Your task to perform on an android device: turn on improve location accuracy Image 0: 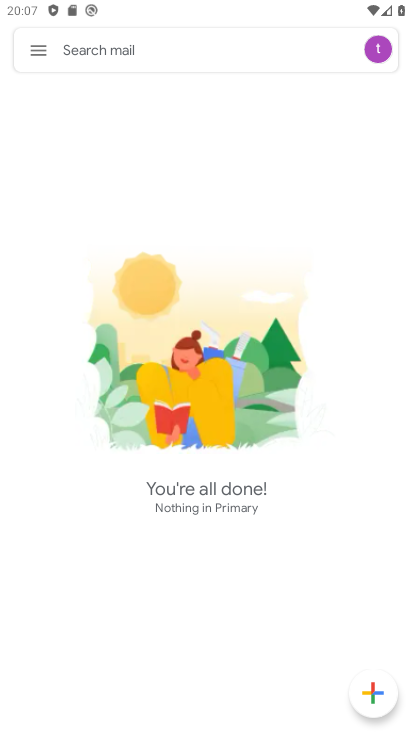
Step 0: press home button
Your task to perform on an android device: turn on improve location accuracy Image 1: 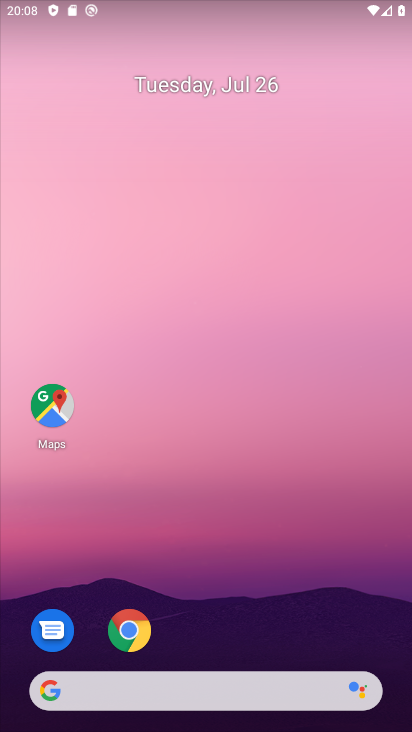
Step 1: drag from (344, 632) to (349, 146)
Your task to perform on an android device: turn on improve location accuracy Image 2: 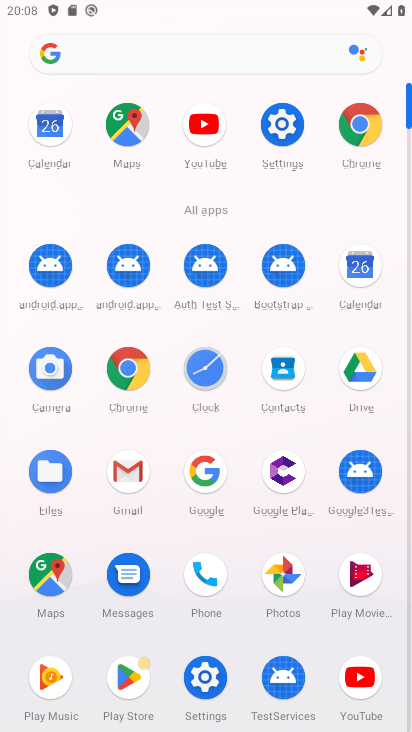
Step 2: click (276, 126)
Your task to perform on an android device: turn on improve location accuracy Image 3: 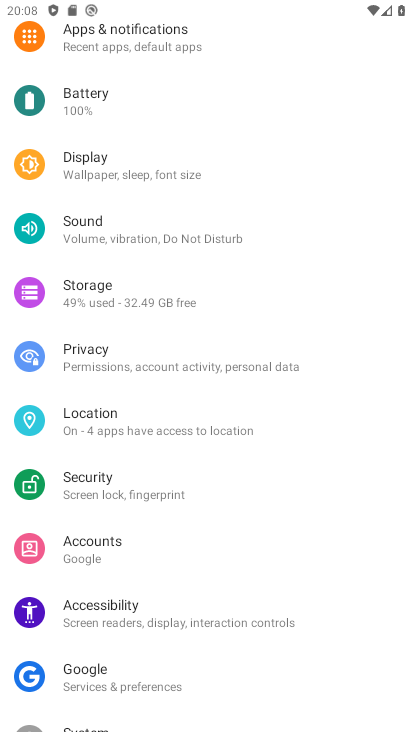
Step 3: drag from (342, 179) to (343, 255)
Your task to perform on an android device: turn on improve location accuracy Image 4: 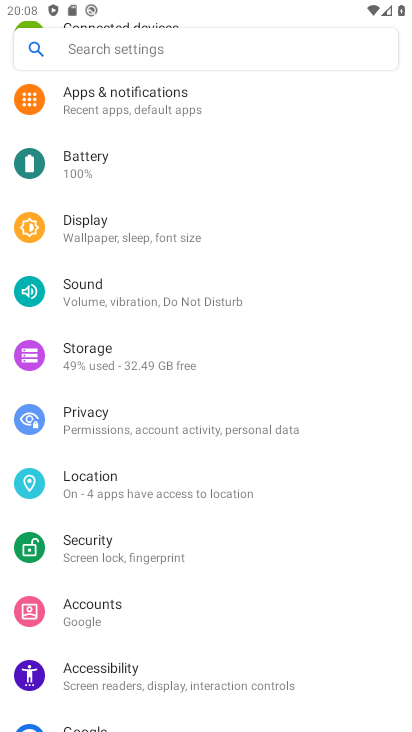
Step 4: drag from (351, 160) to (345, 262)
Your task to perform on an android device: turn on improve location accuracy Image 5: 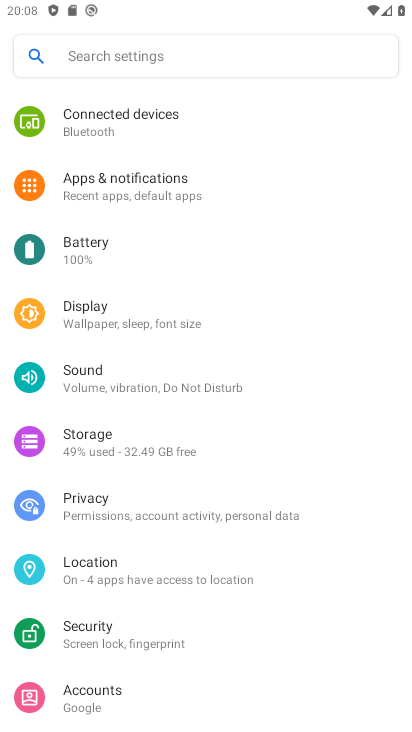
Step 5: drag from (344, 144) to (359, 329)
Your task to perform on an android device: turn on improve location accuracy Image 6: 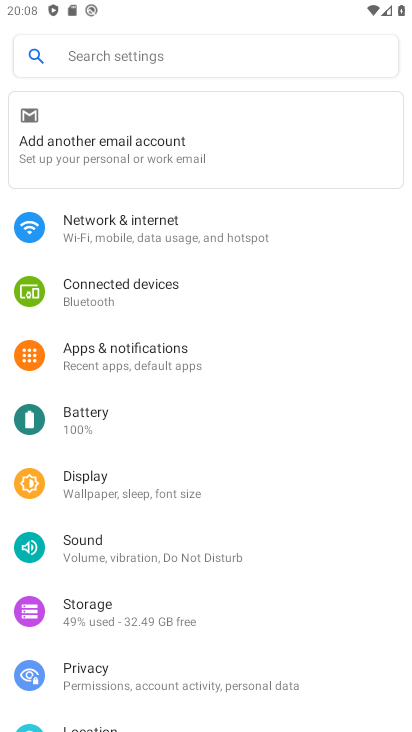
Step 6: drag from (367, 191) to (373, 329)
Your task to perform on an android device: turn on improve location accuracy Image 7: 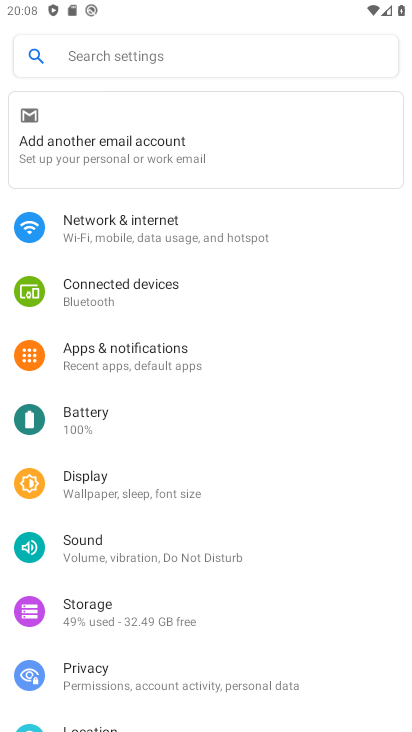
Step 7: drag from (360, 393) to (362, 328)
Your task to perform on an android device: turn on improve location accuracy Image 8: 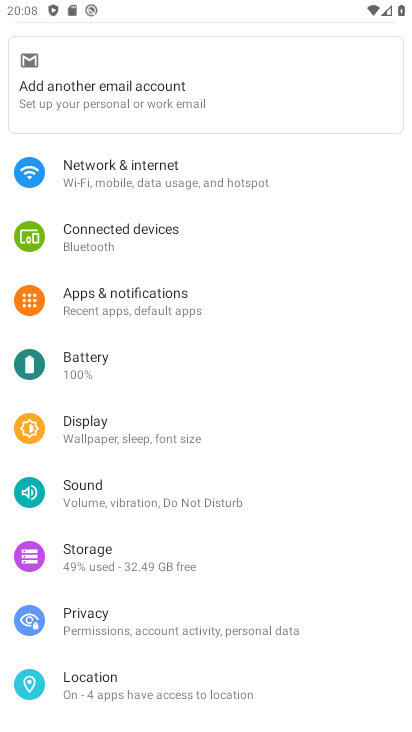
Step 8: drag from (340, 400) to (326, 311)
Your task to perform on an android device: turn on improve location accuracy Image 9: 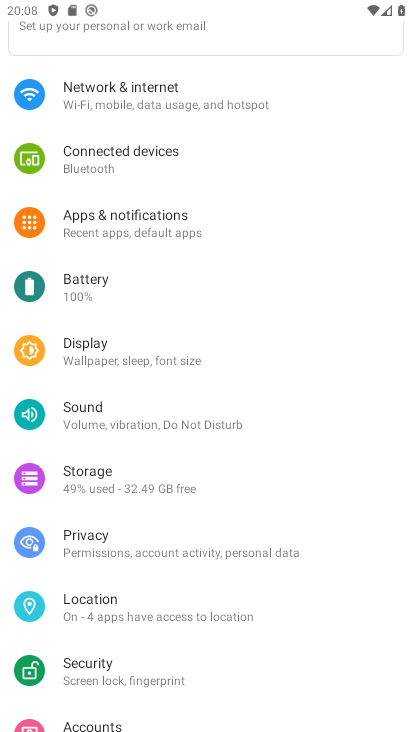
Step 9: drag from (315, 435) to (318, 361)
Your task to perform on an android device: turn on improve location accuracy Image 10: 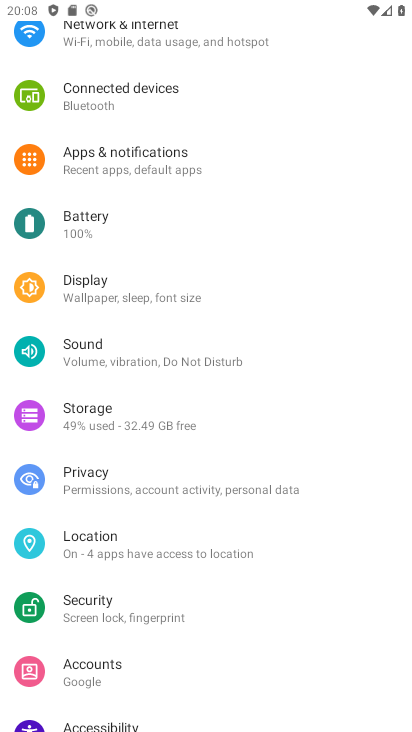
Step 10: drag from (335, 448) to (334, 361)
Your task to perform on an android device: turn on improve location accuracy Image 11: 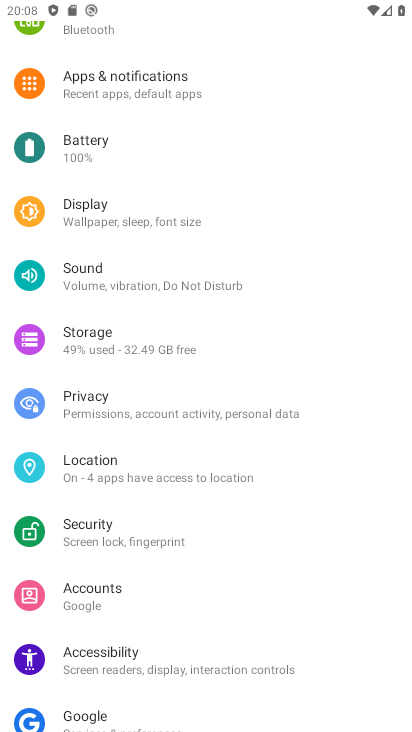
Step 11: drag from (326, 458) to (325, 357)
Your task to perform on an android device: turn on improve location accuracy Image 12: 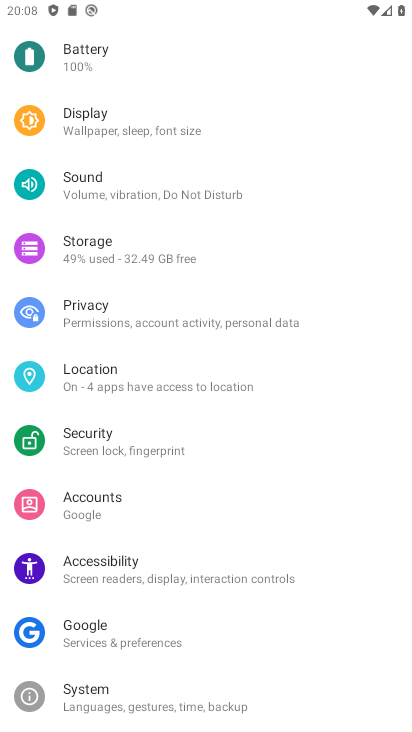
Step 12: drag from (336, 488) to (341, 367)
Your task to perform on an android device: turn on improve location accuracy Image 13: 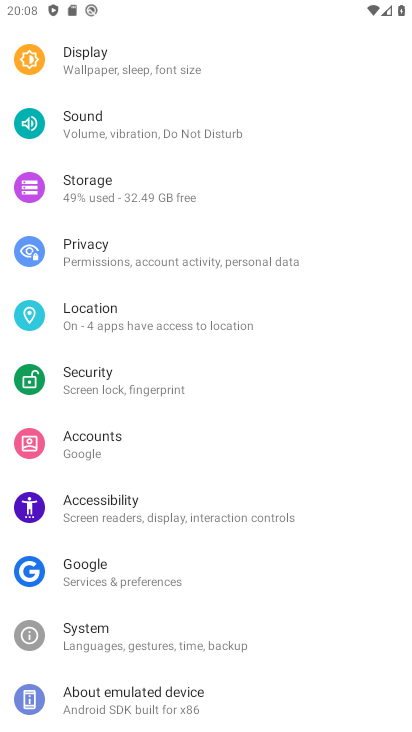
Step 13: click (281, 305)
Your task to perform on an android device: turn on improve location accuracy Image 14: 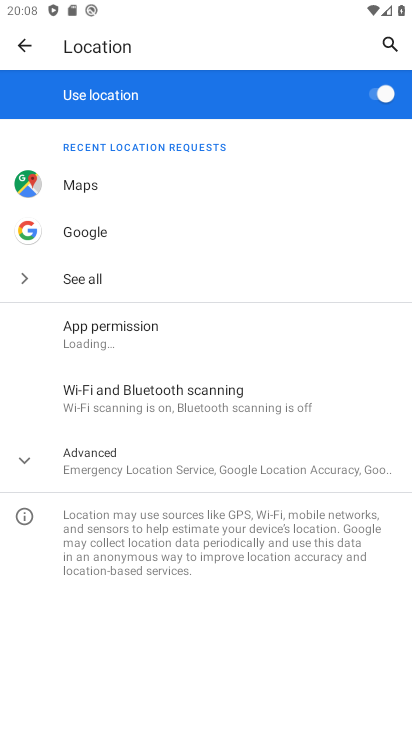
Step 14: click (276, 453)
Your task to perform on an android device: turn on improve location accuracy Image 15: 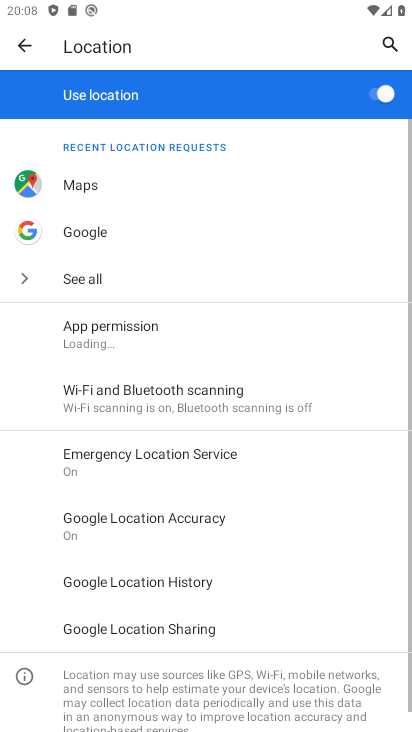
Step 15: drag from (276, 453) to (278, 362)
Your task to perform on an android device: turn on improve location accuracy Image 16: 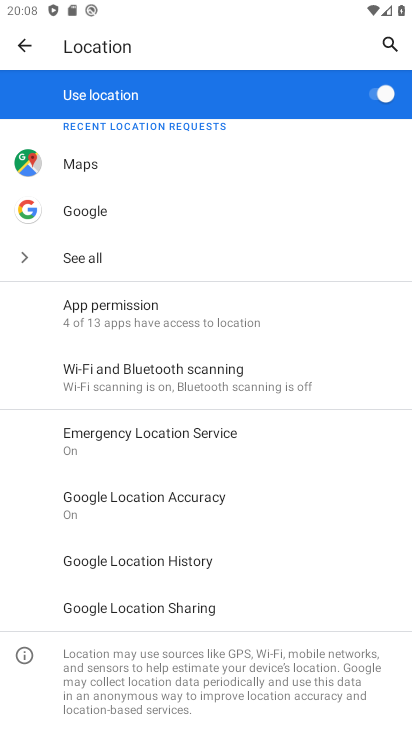
Step 16: click (252, 504)
Your task to perform on an android device: turn on improve location accuracy Image 17: 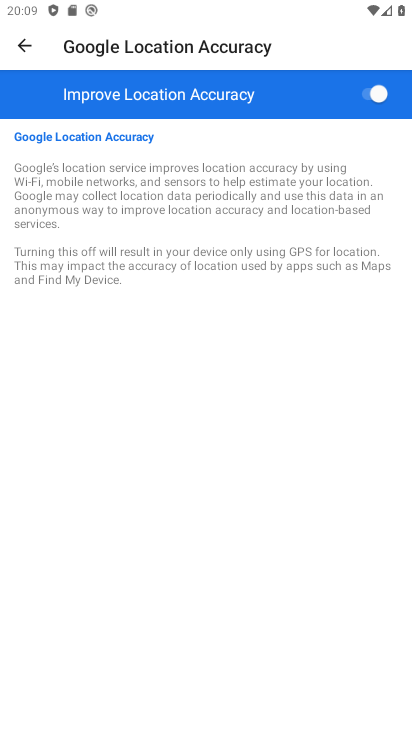
Step 17: task complete